Your task to perform on an android device: Open calendar and show me the first week of next month Image 0: 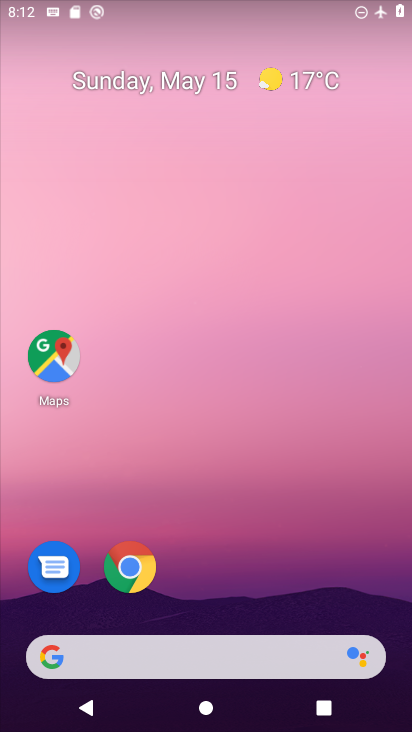
Step 0: drag from (209, 685) to (317, 212)
Your task to perform on an android device: Open calendar and show me the first week of next month Image 1: 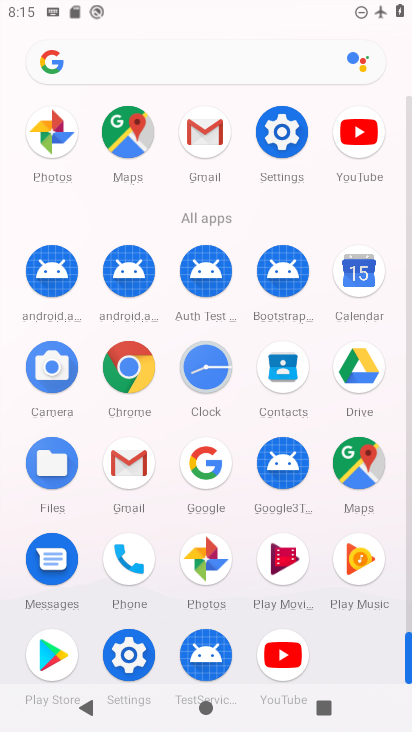
Step 1: click (365, 295)
Your task to perform on an android device: Open calendar and show me the first week of next month Image 2: 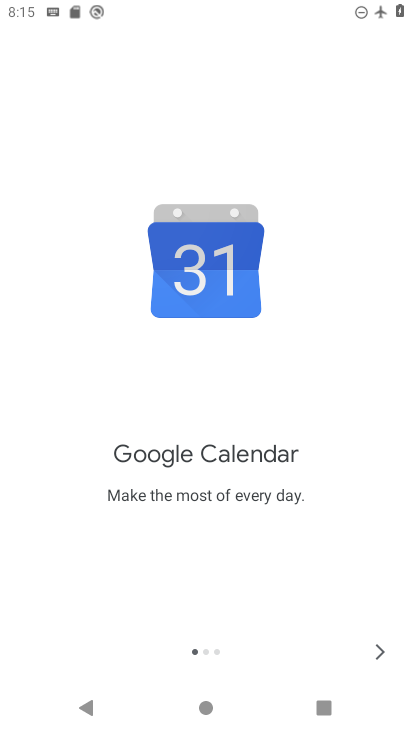
Step 2: click (387, 653)
Your task to perform on an android device: Open calendar and show me the first week of next month Image 3: 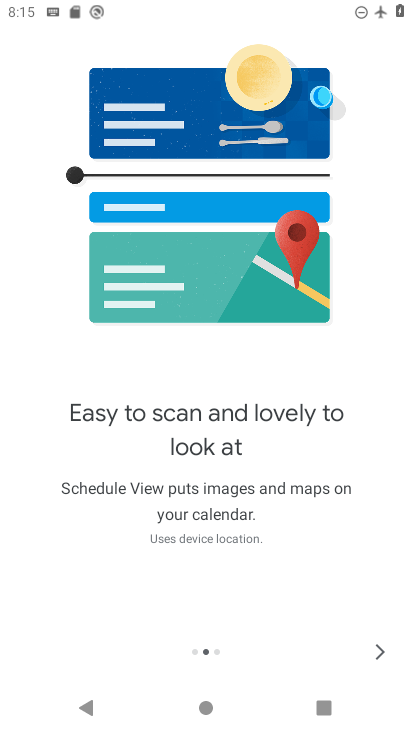
Step 3: click (387, 653)
Your task to perform on an android device: Open calendar and show me the first week of next month Image 4: 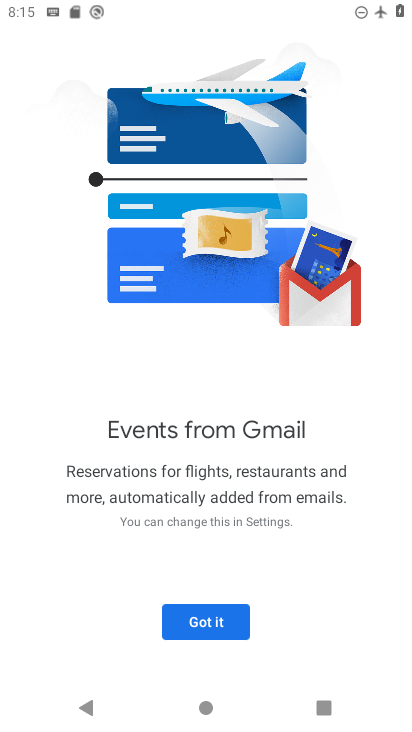
Step 4: click (232, 615)
Your task to perform on an android device: Open calendar and show me the first week of next month Image 5: 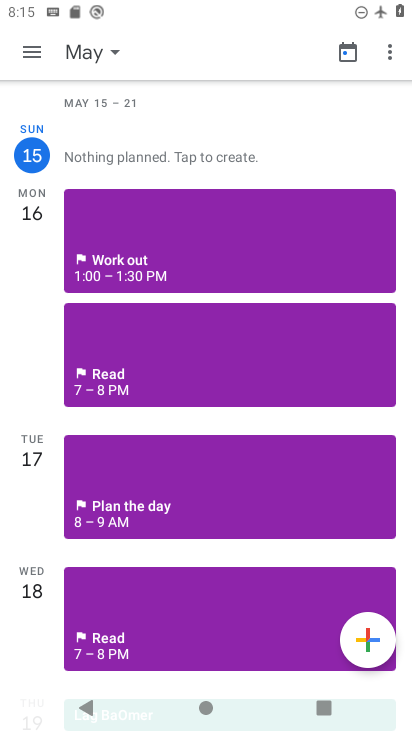
Step 5: click (118, 54)
Your task to perform on an android device: Open calendar and show me the first week of next month Image 6: 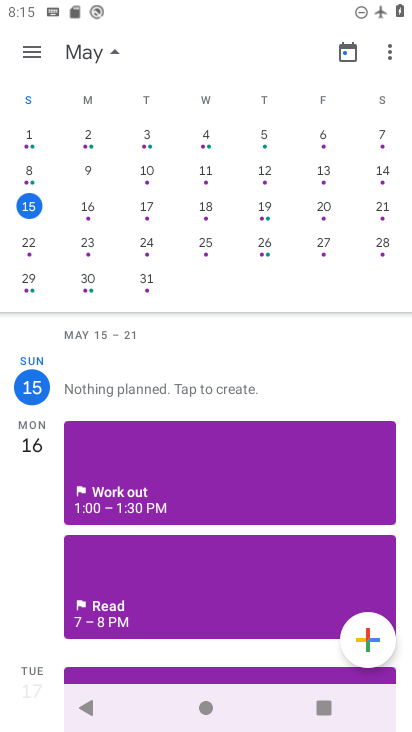
Step 6: drag from (406, 209) to (85, 196)
Your task to perform on an android device: Open calendar and show me the first week of next month Image 7: 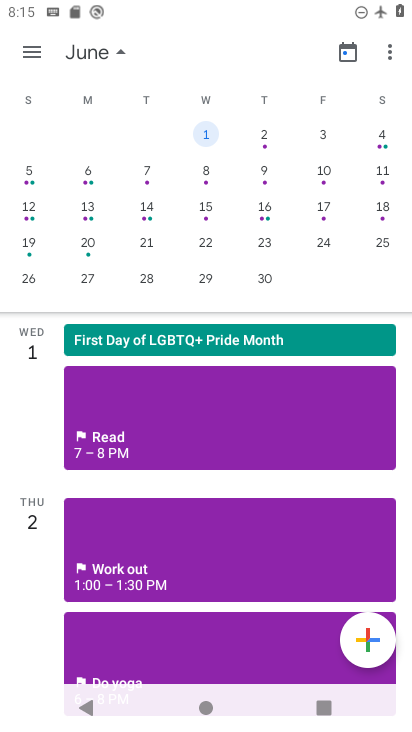
Step 7: click (98, 218)
Your task to perform on an android device: Open calendar and show me the first week of next month Image 8: 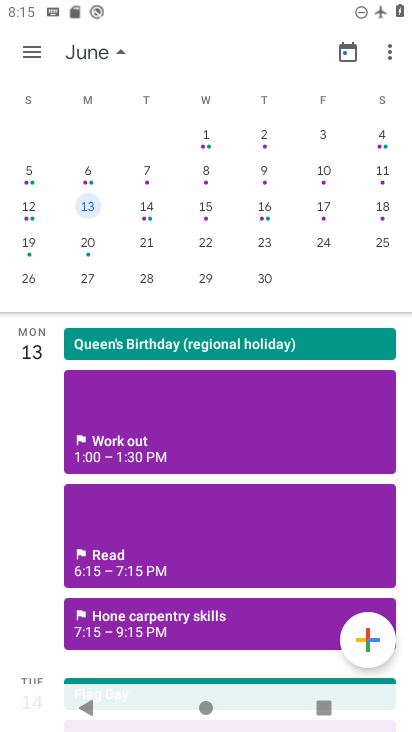
Step 8: task complete